Your task to perform on an android device: read, delete, or share a saved page in the chrome app Image 0: 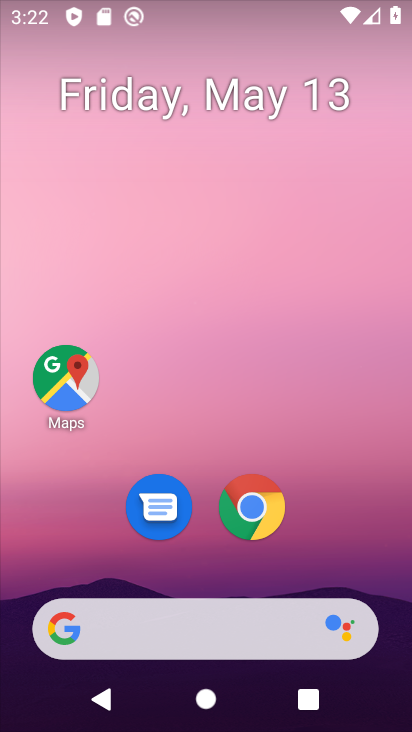
Step 0: drag from (329, 536) to (383, 140)
Your task to perform on an android device: read, delete, or share a saved page in the chrome app Image 1: 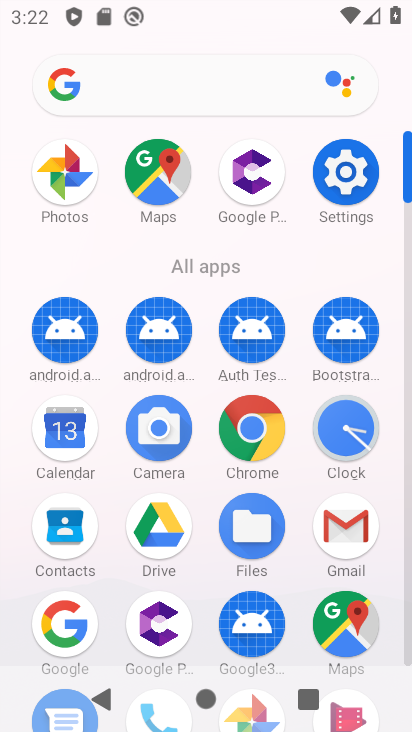
Step 1: click (257, 438)
Your task to perform on an android device: read, delete, or share a saved page in the chrome app Image 2: 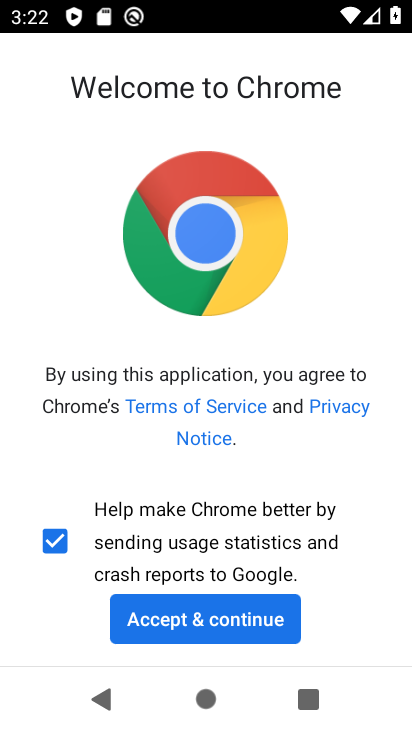
Step 2: click (216, 621)
Your task to perform on an android device: read, delete, or share a saved page in the chrome app Image 3: 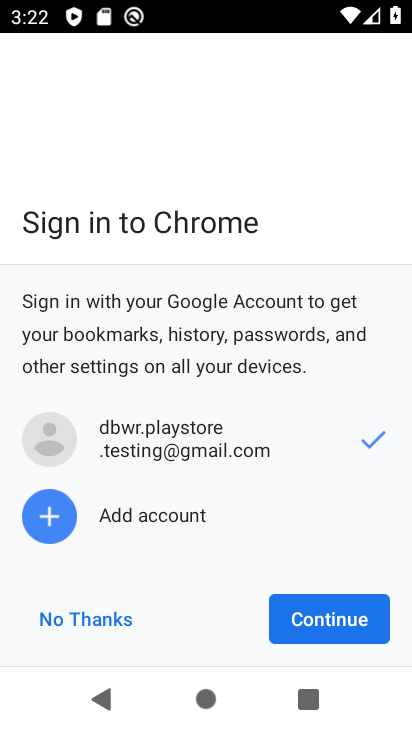
Step 3: click (323, 622)
Your task to perform on an android device: read, delete, or share a saved page in the chrome app Image 4: 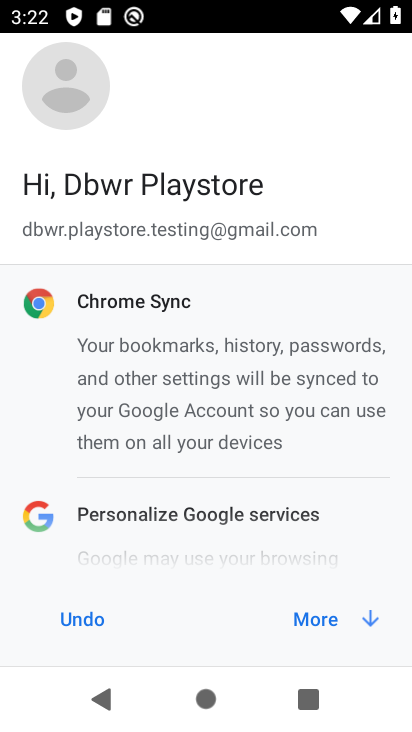
Step 4: click (323, 622)
Your task to perform on an android device: read, delete, or share a saved page in the chrome app Image 5: 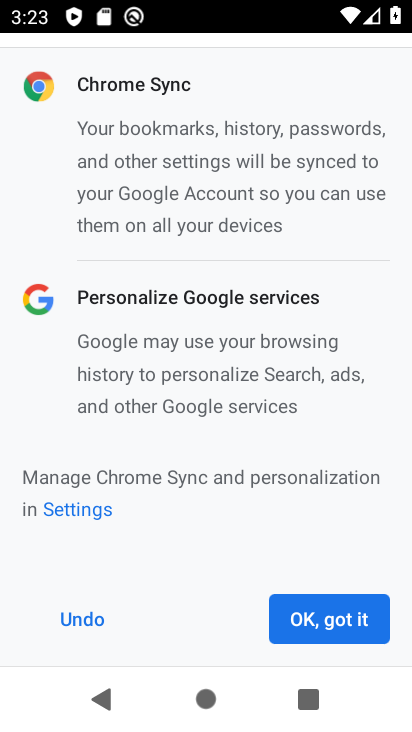
Step 5: click (323, 624)
Your task to perform on an android device: read, delete, or share a saved page in the chrome app Image 6: 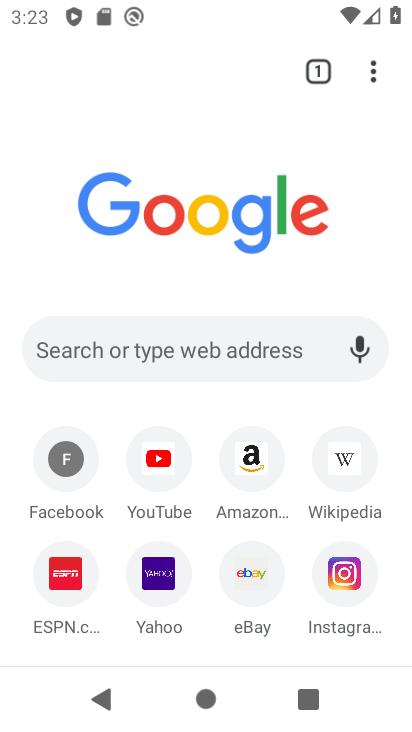
Step 6: task complete